Your task to perform on an android device: Search for vegetarian restaurants on Maps Image 0: 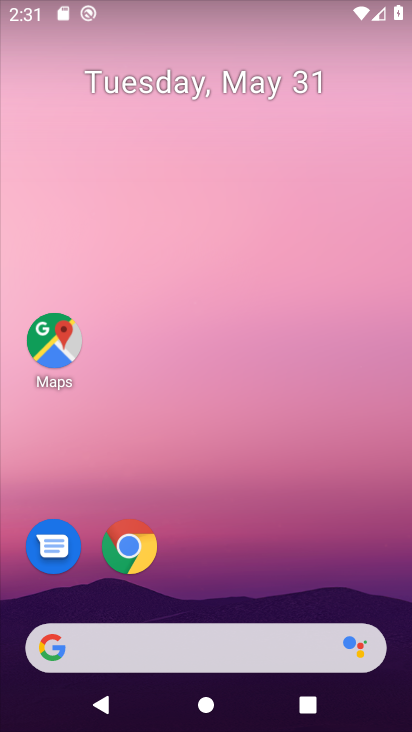
Step 0: click (52, 348)
Your task to perform on an android device: Search for vegetarian restaurants on Maps Image 1: 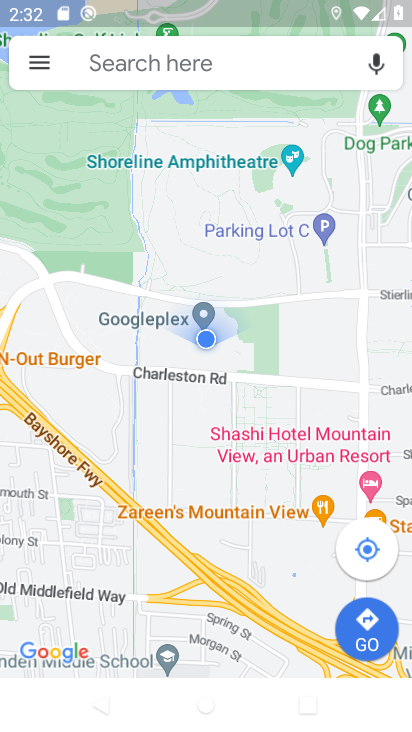
Step 1: click (156, 72)
Your task to perform on an android device: Search for vegetarian restaurants on Maps Image 2: 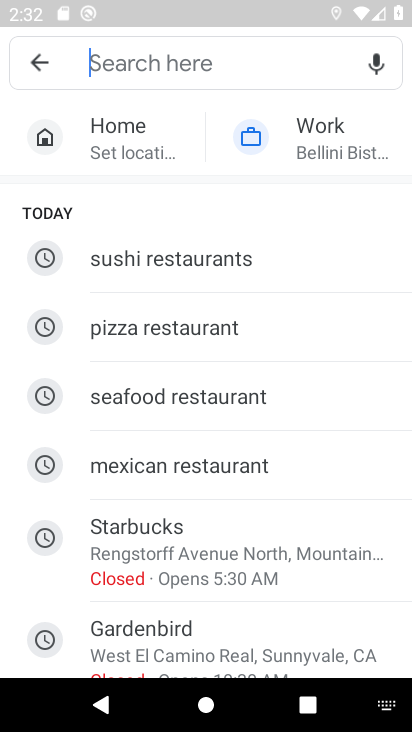
Step 2: type "vegetarian restaurants"
Your task to perform on an android device: Search for vegetarian restaurants on Maps Image 3: 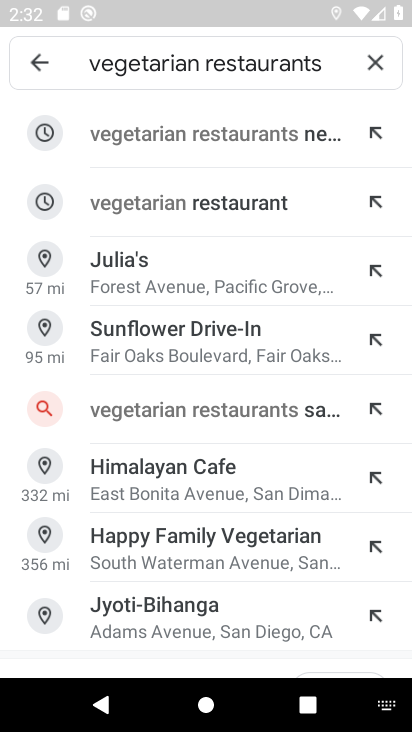
Step 3: click (221, 140)
Your task to perform on an android device: Search for vegetarian restaurants on Maps Image 4: 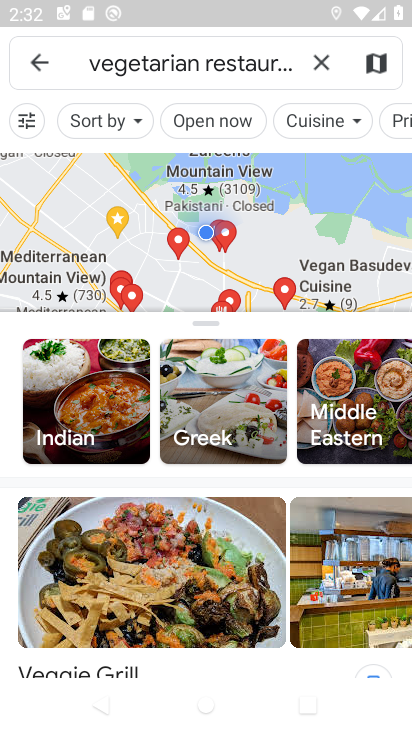
Step 4: task complete